Your task to perform on an android device: set default search engine in the chrome app Image 0: 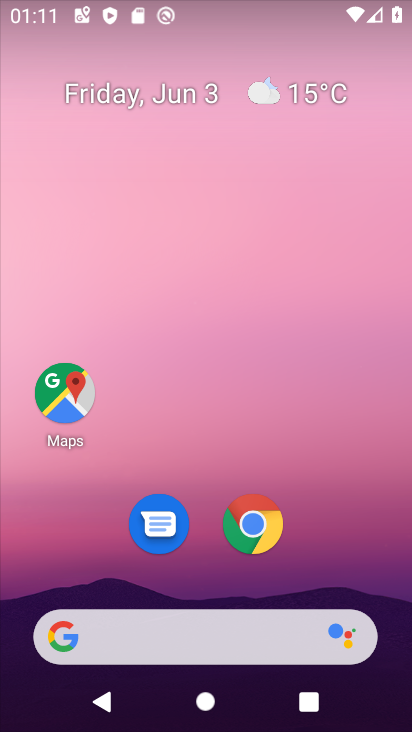
Step 0: click (259, 526)
Your task to perform on an android device: set default search engine in the chrome app Image 1: 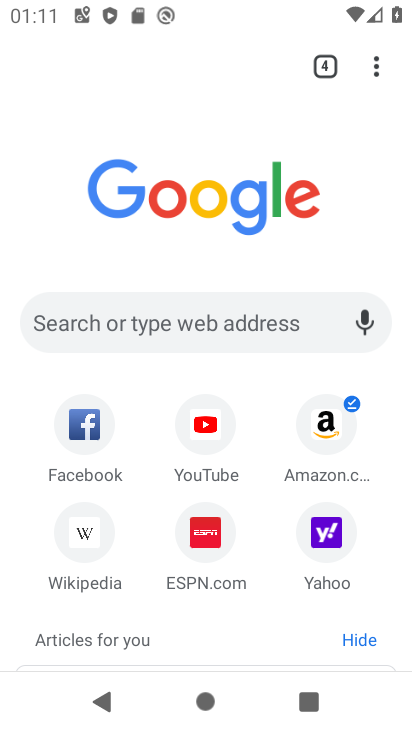
Step 1: click (372, 60)
Your task to perform on an android device: set default search engine in the chrome app Image 2: 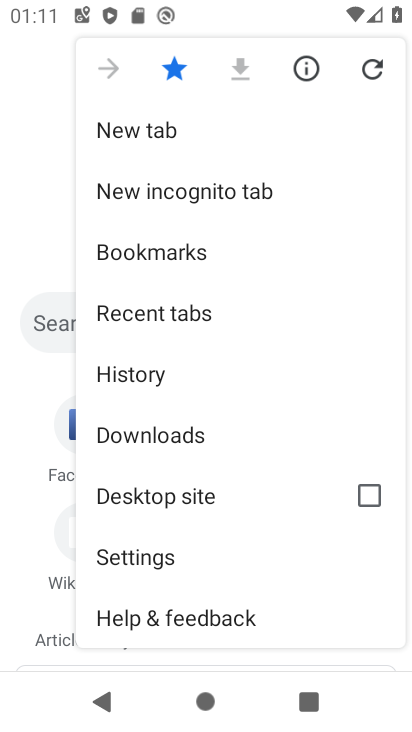
Step 2: click (189, 559)
Your task to perform on an android device: set default search engine in the chrome app Image 3: 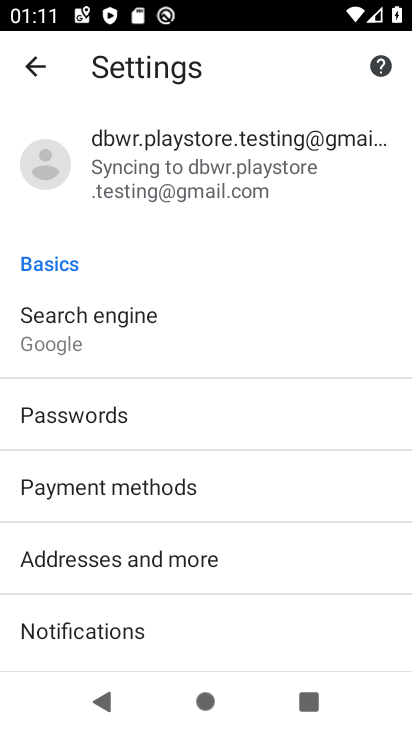
Step 3: click (185, 350)
Your task to perform on an android device: set default search engine in the chrome app Image 4: 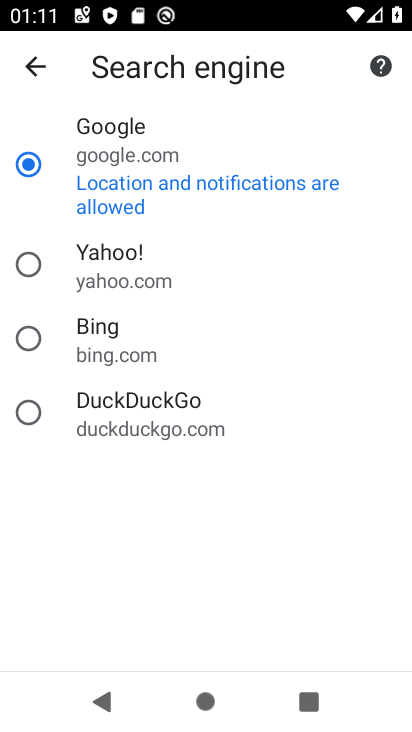
Step 4: task complete